Your task to perform on an android device: Go to internet settings Image 0: 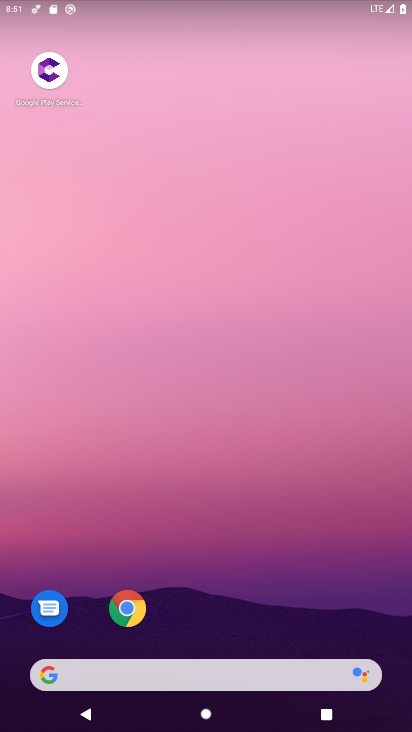
Step 0: drag from (361, 552) to (297, 34)
Your task to perform on an android device: Go to internet settings Image 1: 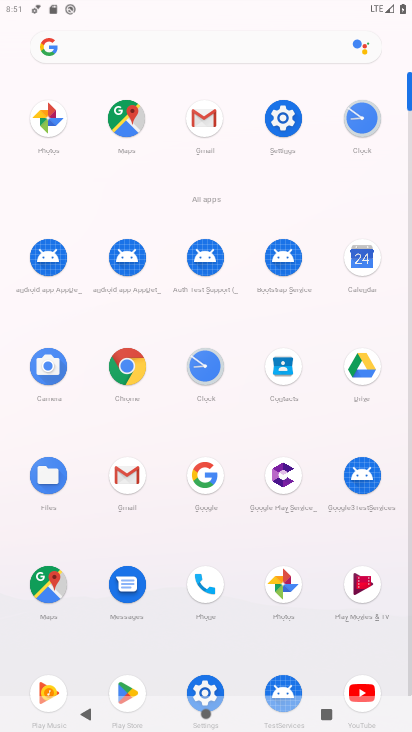
Step 1: click (286, 120)
Your task to perform on an android device: Go to internet settings Image 2: 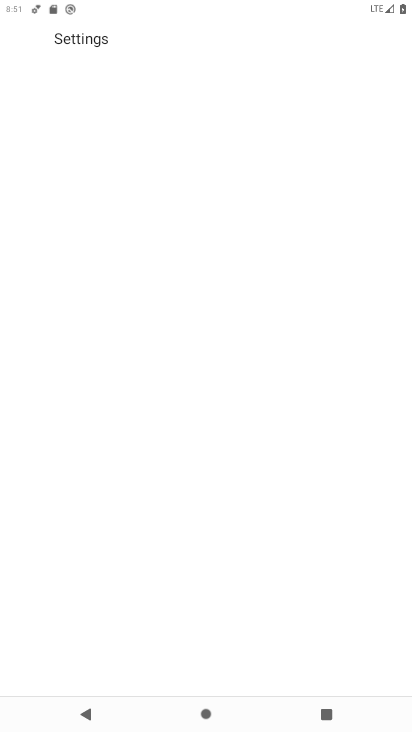
Step 2: click (286, 120)
Your task to perform on an android device: Go to internet settings Image 3: 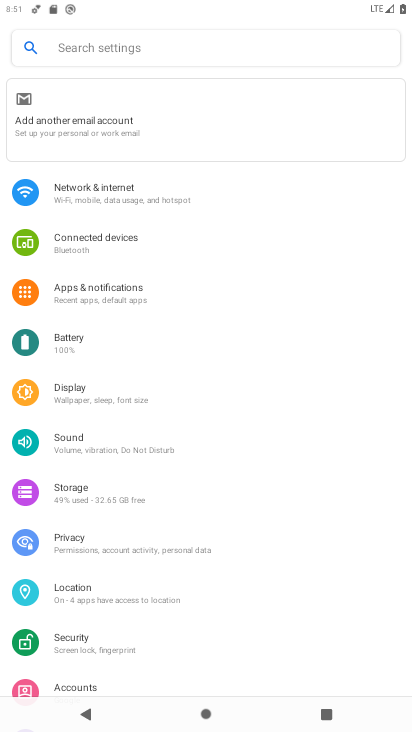
Step 3: click (29, 190)
Your task to perform on an android device: Go to internet settings Image 4: 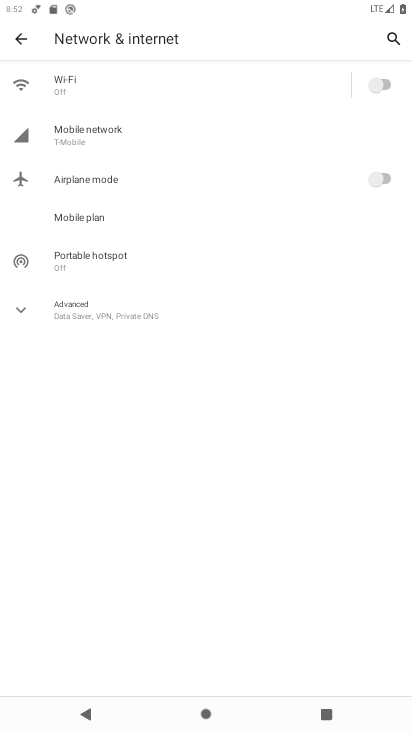
Step 4: click (185, 140)
Your task to perform on an android device: Go to internet settings Image 5: 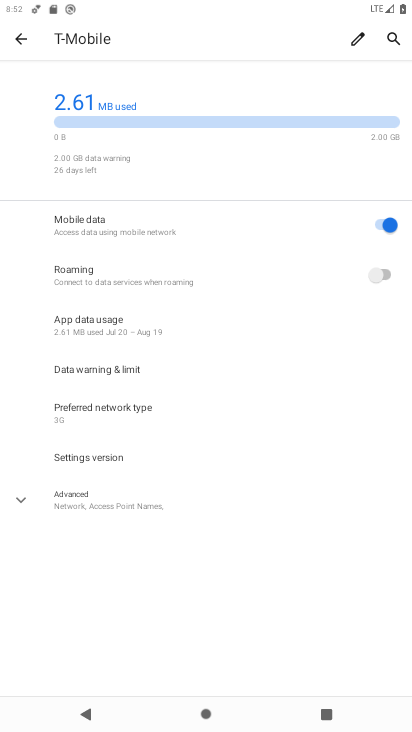
Step 5: task complete